Your task to perform on an android device: Open calendar and show me the second week of next month Image 0: 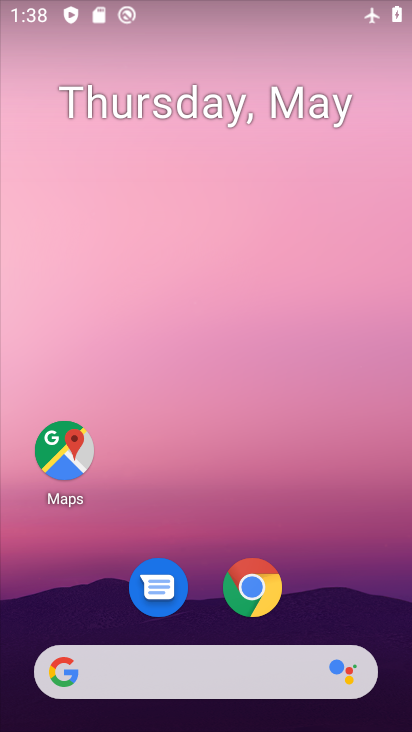
Step 0: drag from (334, 537) to (184, 50)
Your task to perform on an android device: Open calendar and show me the second week of next month Image 1: 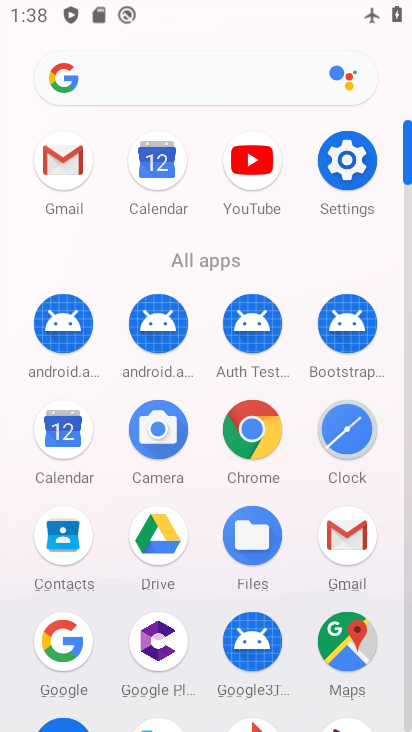
Step 1: click (61, 425)
Your task to perform on an android device: Open calendar and show me the second week of next month Image 2: 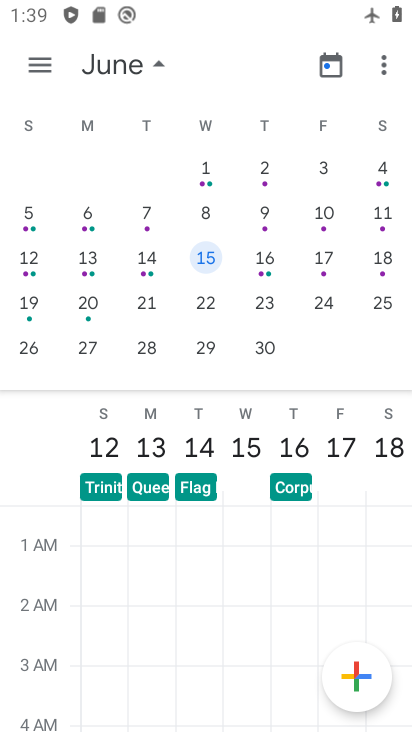
Step 2: click (203, 212)
Your task to perform on an android device: Open calendar and show me the second week of next month Image 3: 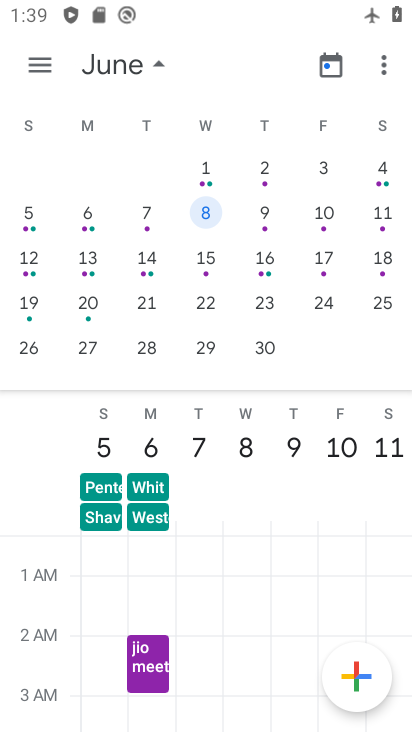
Step 3: task complete